Your task to perform on an android device: Go to Amazon Image 0: 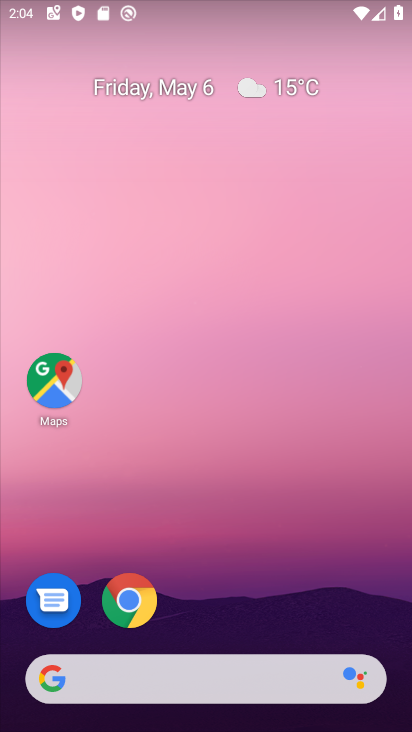
Step 0: drag from (352, 454) to (313, 21)
Your task to perform on an android device: Go to Amazon Image 1: 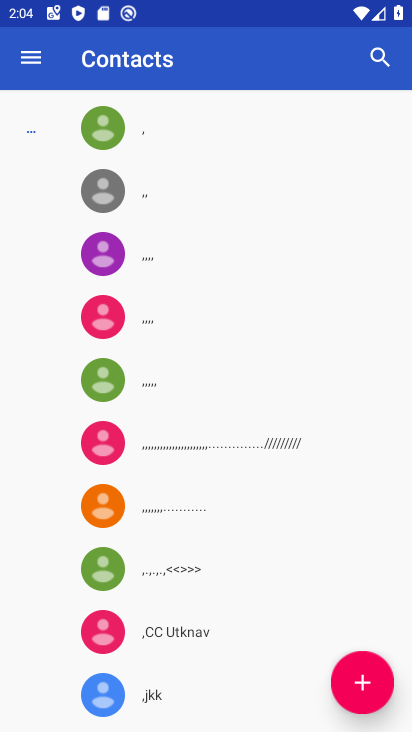
Step 1: press home button
Your task to perform on an android device: Go to Amazon Image 2: 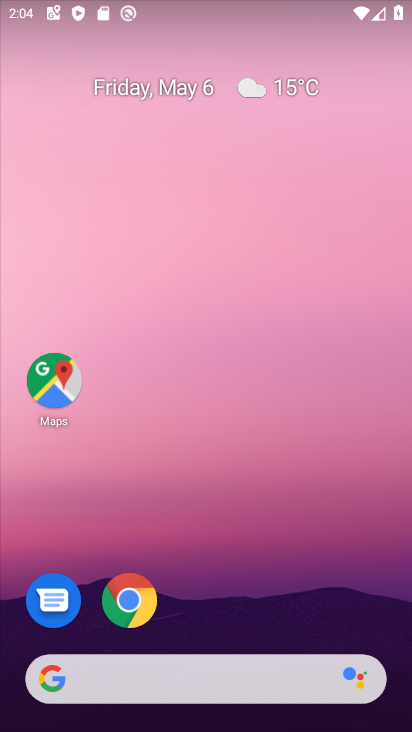
Step 2: drag from (311, 618) to (367, 114)
Your task to perform on an android device: Go to Amazon Image 3: 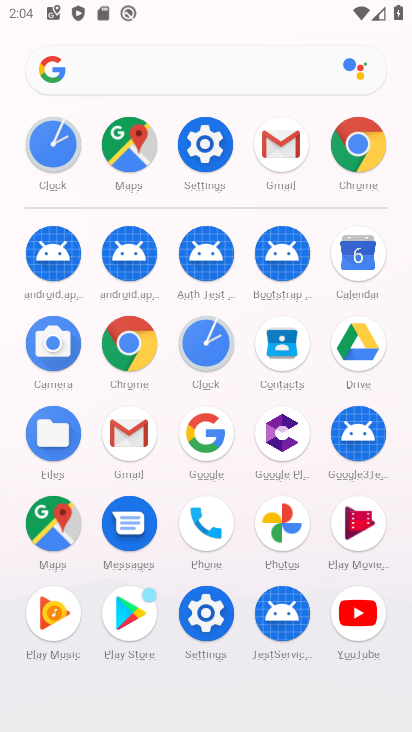
Step 3: click (122, 354)
Your task to perform on an android device: Go to Amazon Image 4: 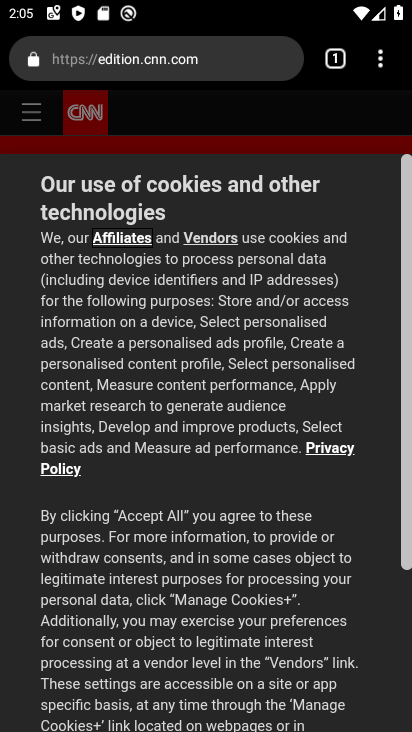
Step 4: press back button
Your task to perform on an android device: Go to Amazon Image 5: 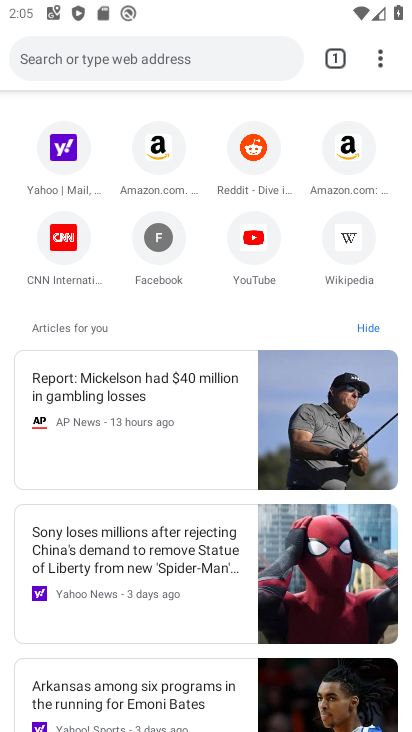
Step 5: click (340, 153)
Your task to perform on an android device: Go to Amazon Image 6: 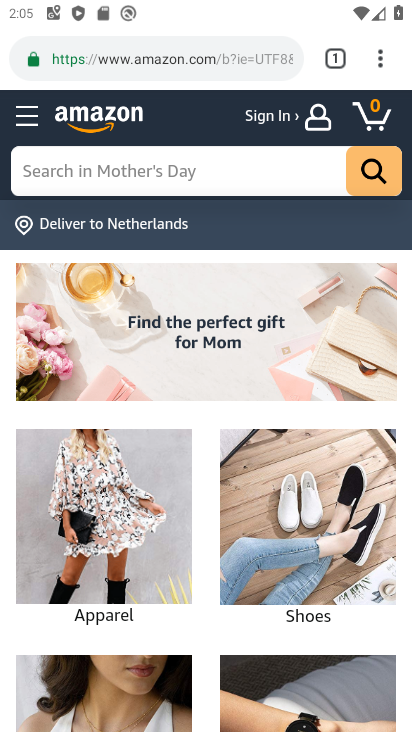
Step 6: task complete